Your task to perform on an android device: toggle improve location accuracy Image 0: 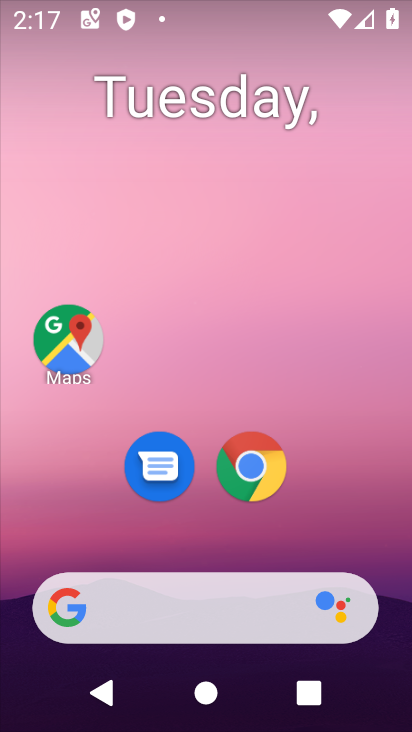
Step 0: task complete